Your task to perform on an android device: open app "Adobe Express: Graphic Design" (install if not already installed) Image 0: 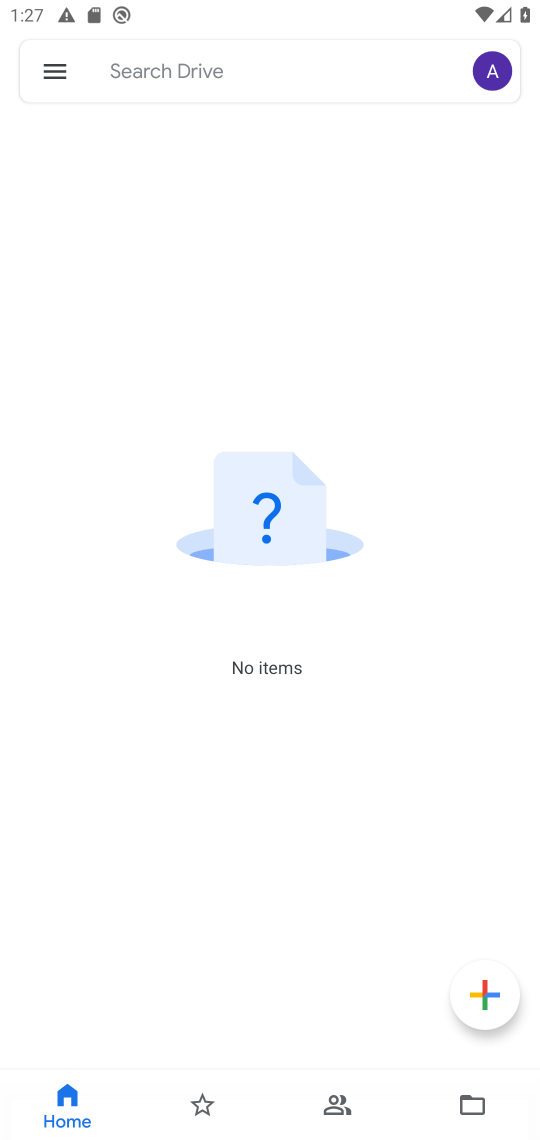
Step 0: press home button
Your task to perform on an android device: open app "Adobe Express: Graphic Design" (install if not already installed) Image 1: 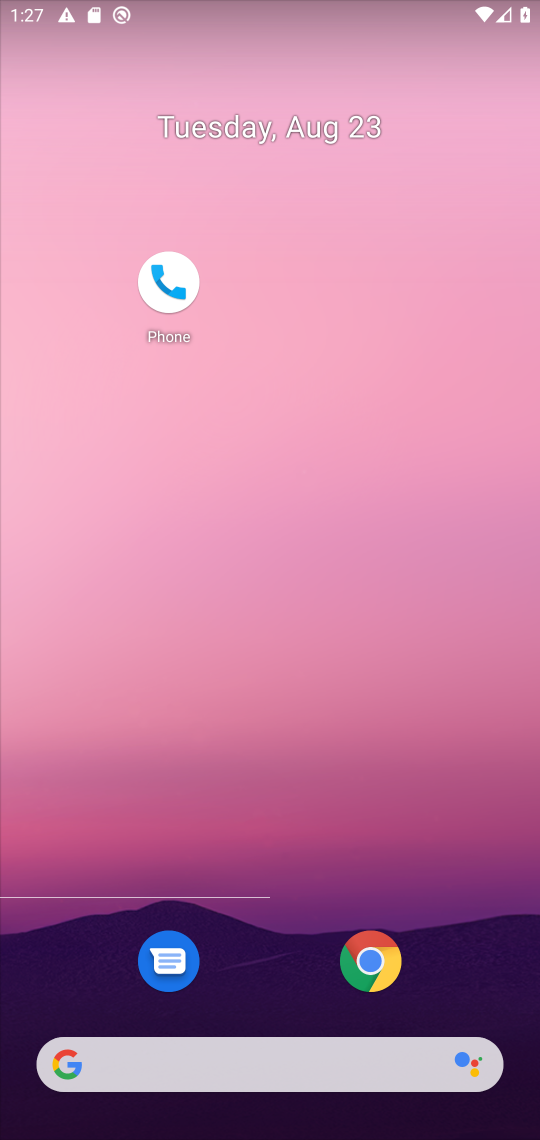
Step 1: drag from (246, 1001) to (288, 48)
Your task to perform on an android device: open app "Adobe Express: Graphic Design" (install if not already installed) Image 2: 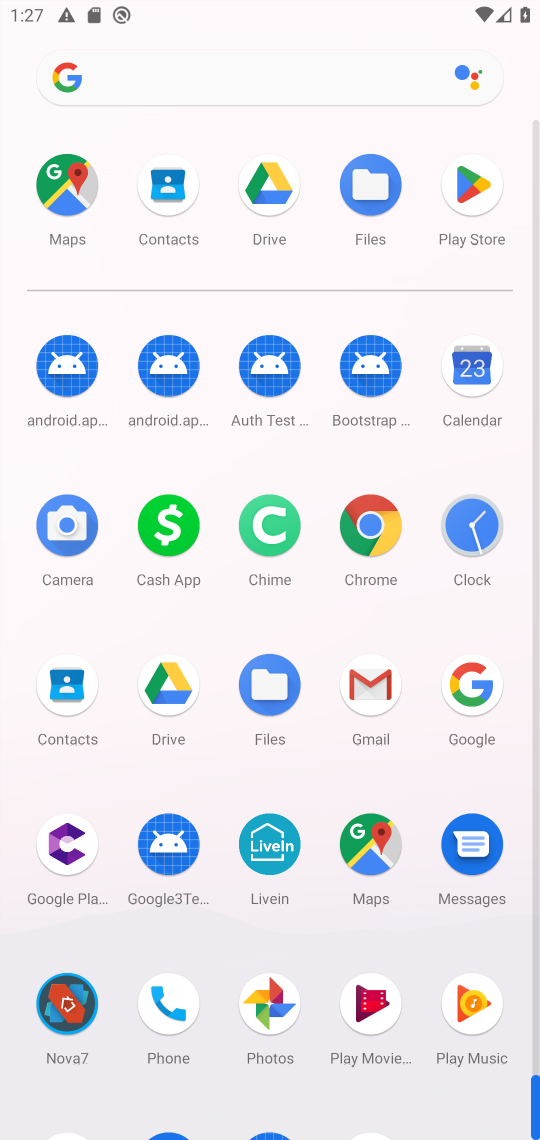
Step 2: click (460, 165)
Your task to perform on an android device: open app "Adobe Express: Graphic Design" (install if not already installed) Image 3: 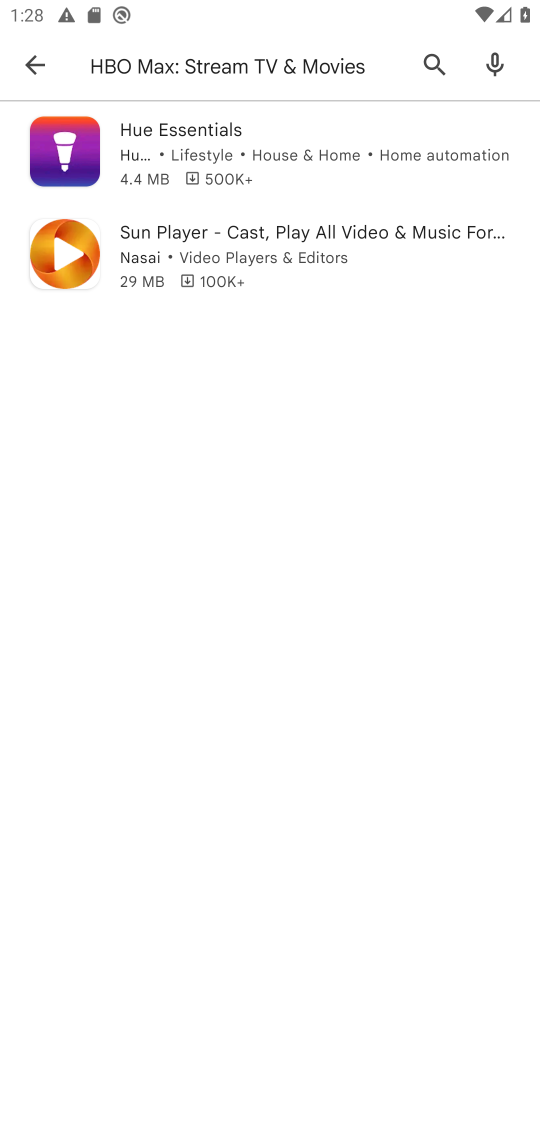
Step 3: task complete